Your task to perform on an android device: turn on notifications settings in the gmail app Image 0: 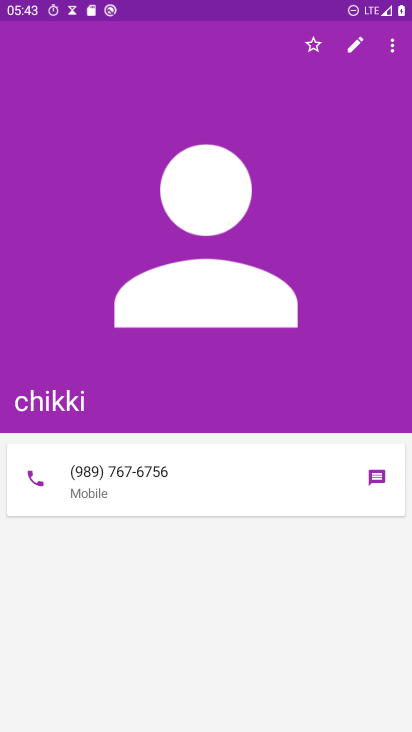
Step 0: press home button
Your task to perform on an android device: turn on notifications settings in the gmail app Image 1: 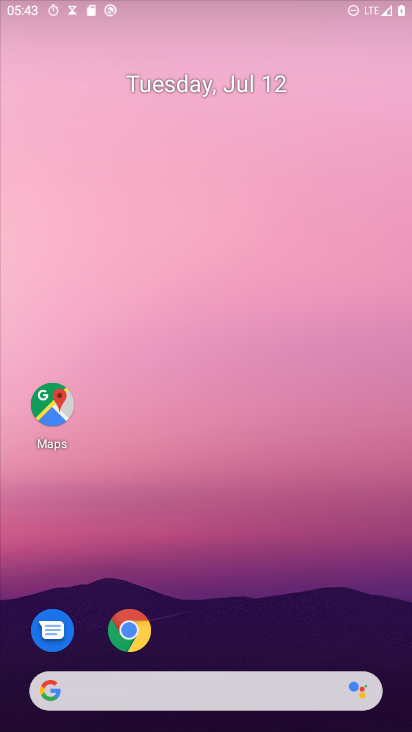
Step 1: drag from (238, 712) to (221, 93)
Your task to perform on an android device: turn on notifications settings in the gmail app Image 2: 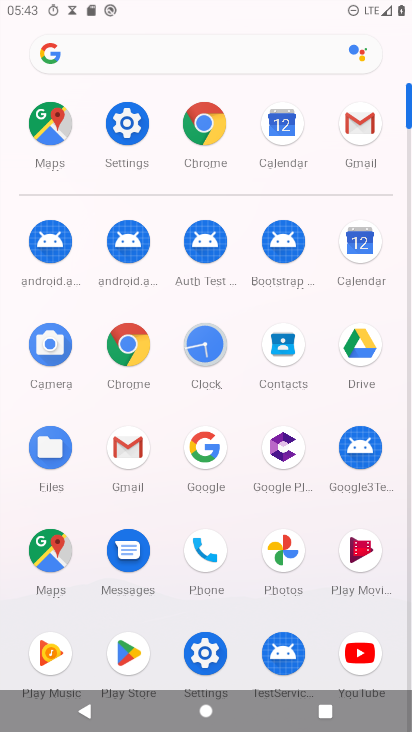
Step 2: click (111, 453)
Your task to perform on an android device: turn on notifications settings in the gmail app Image 3: 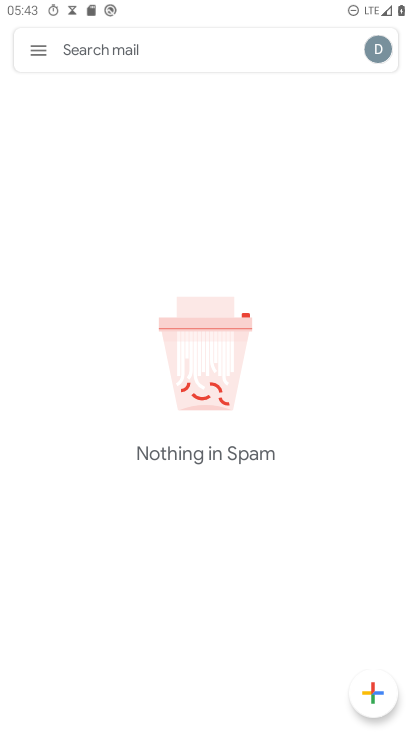
Step 3: click (38, 55)
Your task to perform on an android device: turn on notifications settings in the gmail app Image 4: 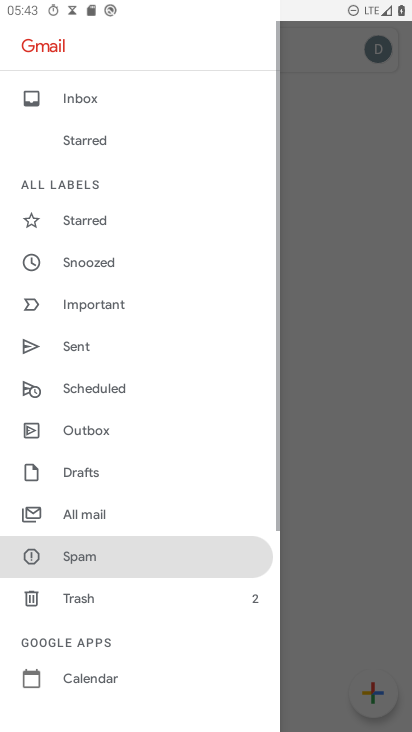
Step 4: drag from (144, 634) to (228, 156)
Your task to perform on an android device: turn on notifications settings in the gmail app Image 5: 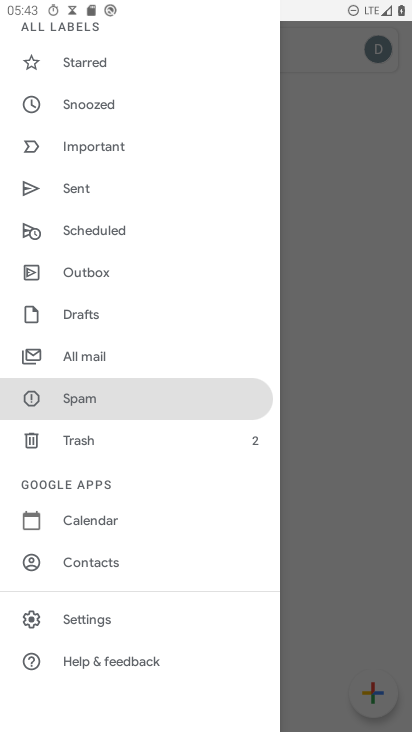
Step 5: click (110, 616)
Your task to perform on an android device: turn on notifications settings in the gmail app Image 6: 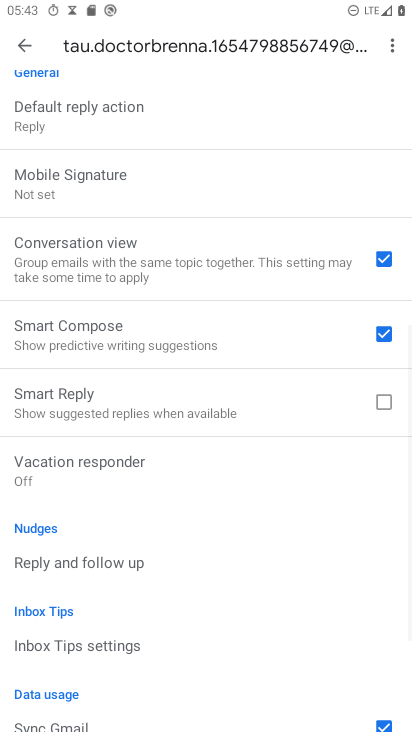
Step 6: drag from (178, 685) to (144, 722)
Your task to perform on an android device: turn on notifications settings in the gmail app Image 7: 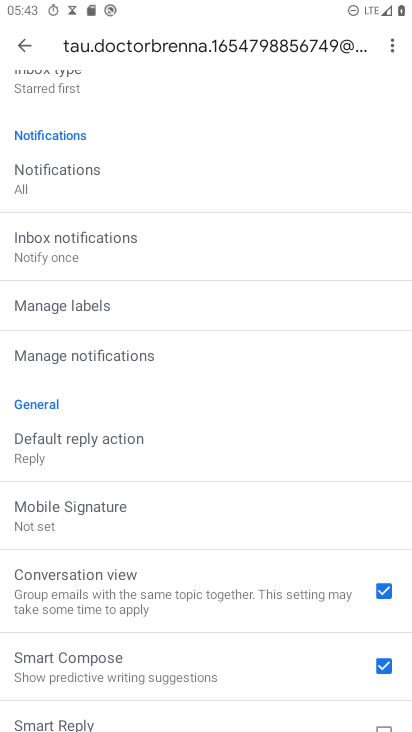
Step 7: click (125, 355)
Your task to perform on an android device: turn on notifications settings in the gmail app Image 8: 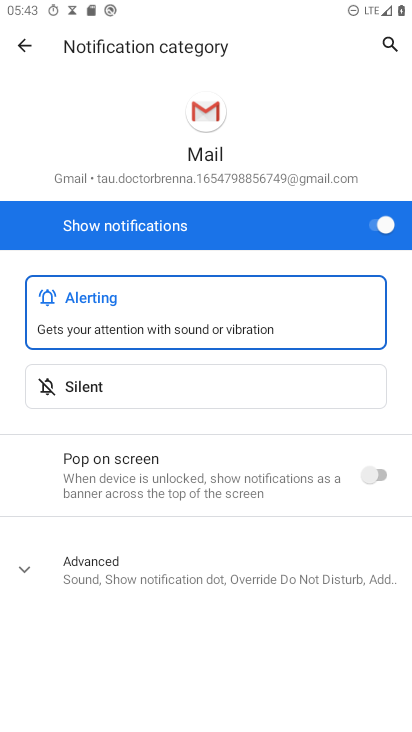
Step 8: task complete